Your task to perform on an android device: Open maps Image 0: 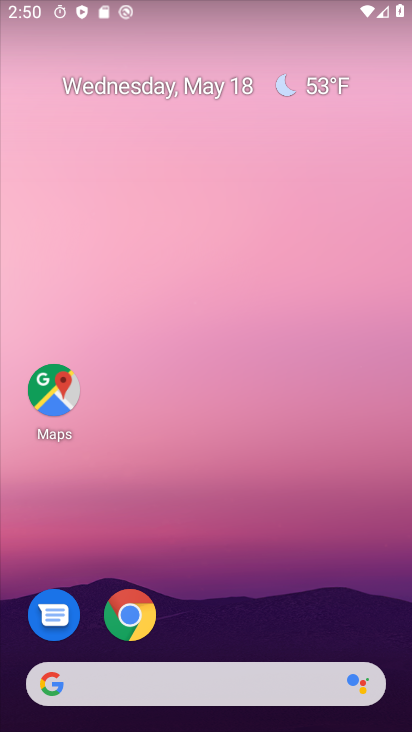
Step 0: click (60, 412)
Your task to perform on an android device: Open maps Image 1: 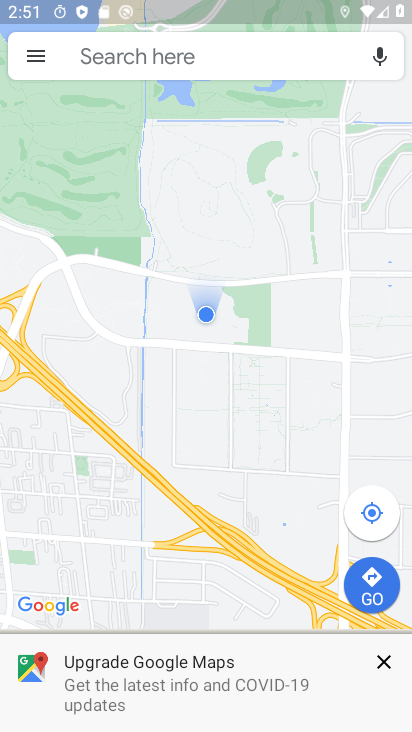
Step 1: task complete